Your task to perform on an android device: clear all cookies in the chrome app Image 0: 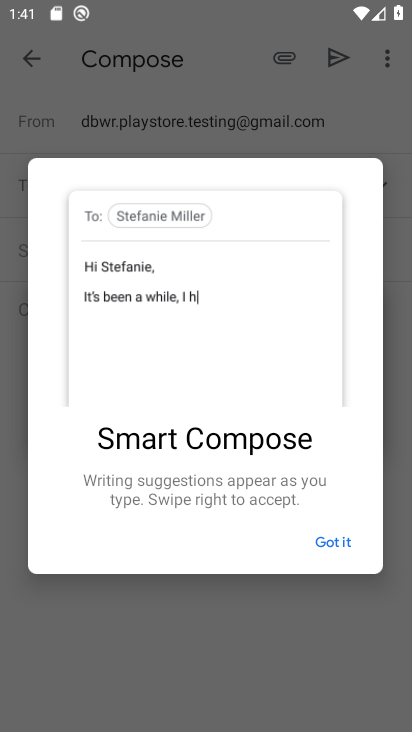
Step 0: press home button
Your task to perform on an android device: clear all cookies in the chrome app Image 1: 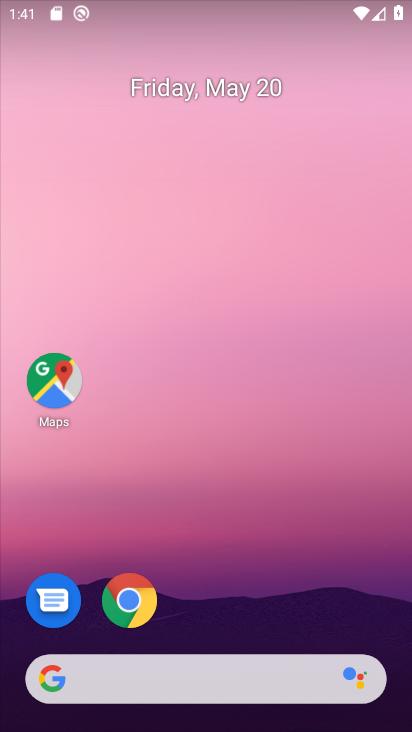
Step 1: click (143, 606)
Your task to perform on an android device: clear all cookies in the chrome app Image 2: 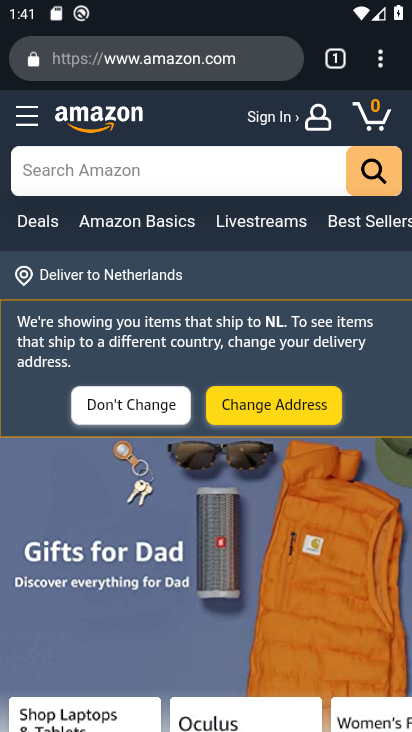
Step 2: click (380, 70)
Your task to perform on an android device: clear all cookies in the chrome app Image 3: 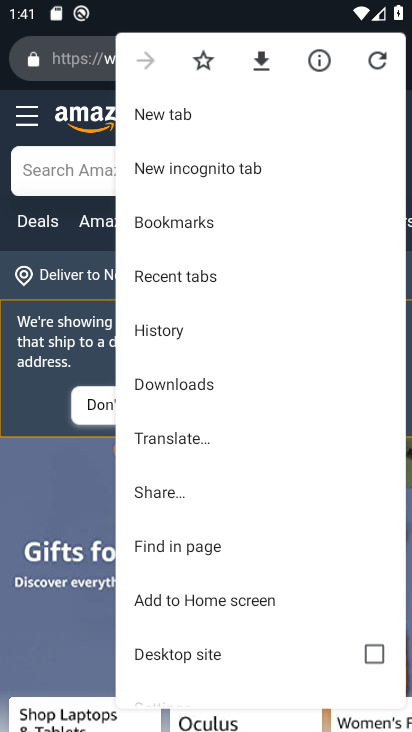
Step 3: click (171, 340)
Your task to perform on an android device: clear all cookies in the chrome app Image 4: 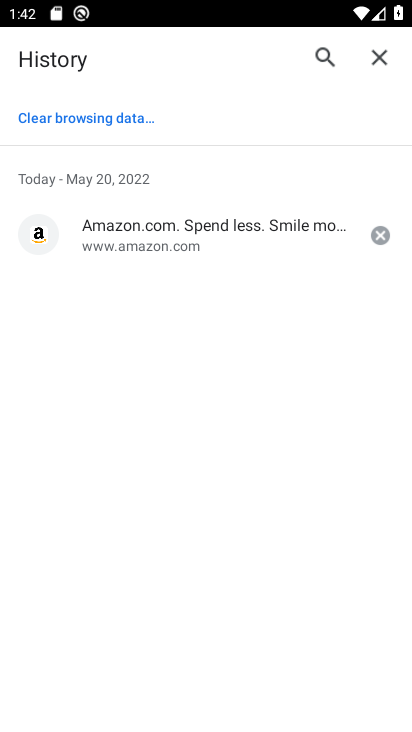
Step 4: click (98, 117)
Your task to perform on an android device: clear all cookies in the chrome app Image 5: 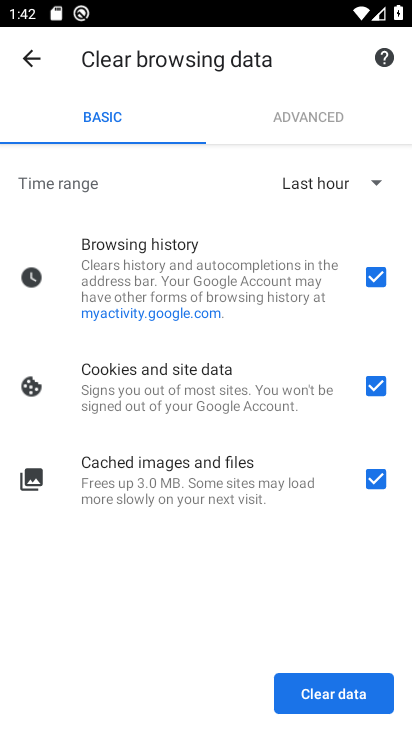
Step 5: click (383, 288)
Your task to perform on an android device: clear all cookies in the chrome app Image 6: 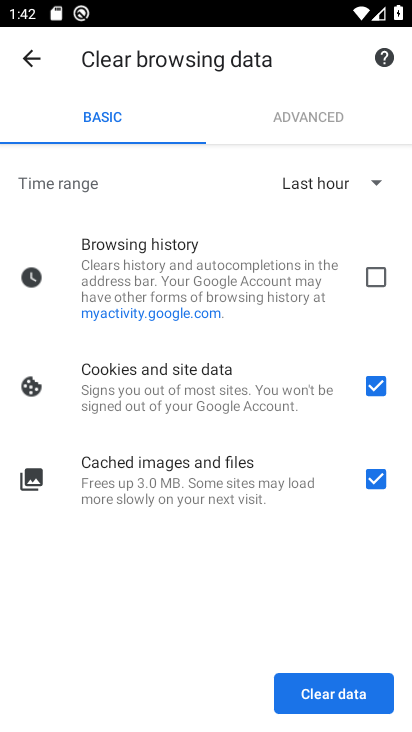
Step 6: click (371, 492)
Your task to perform on an android device: clear all cookies in the chrome app Image 7: 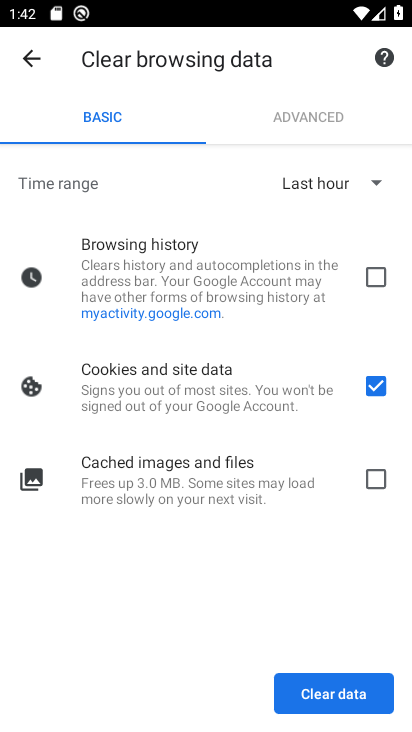
Step 7: click (354, 704)
Your task to perform on an android device: clear all cookies in the chrome app Image 8: 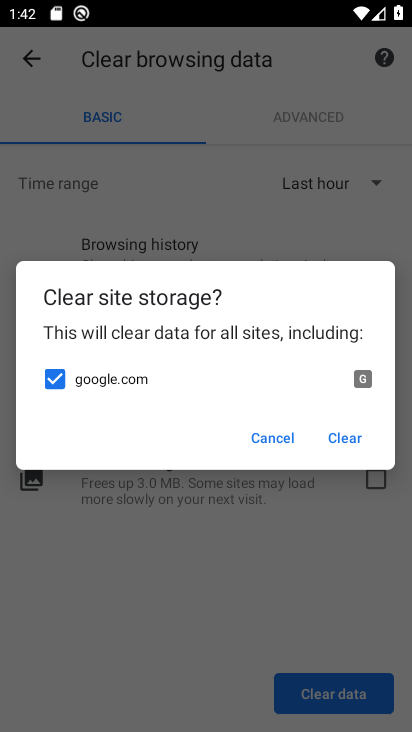
Step 8: click (345, 441)
Your task to perform on an android device: clear all cookies in the chrome app Image 9: 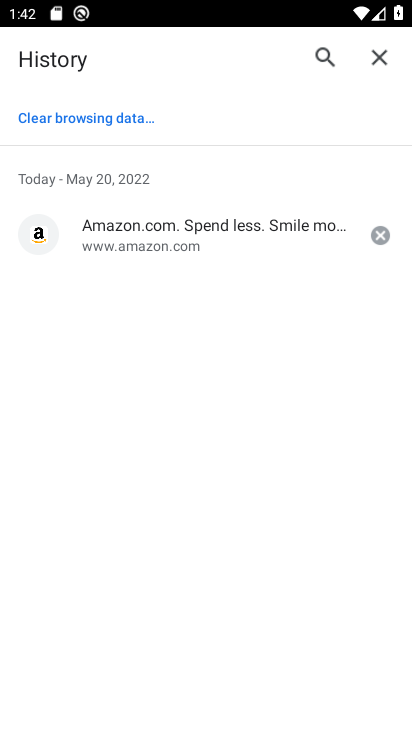
Step 9: task complete